Your task to perform on an android device: change the clock display to digital Image 0: 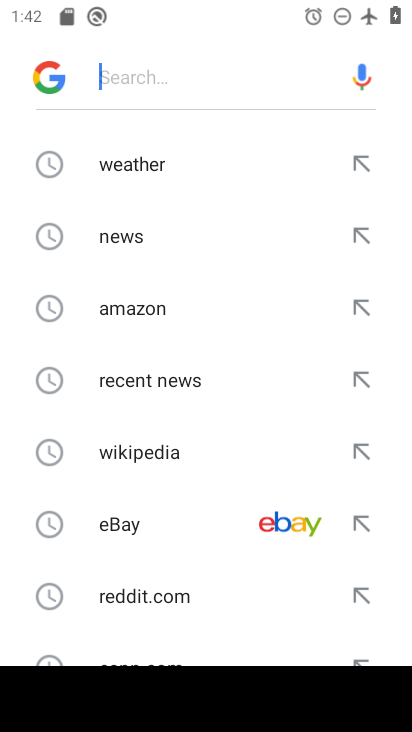
Step 0: press home button
Your task to perform on an android device: change the clock display to digital Image 1: 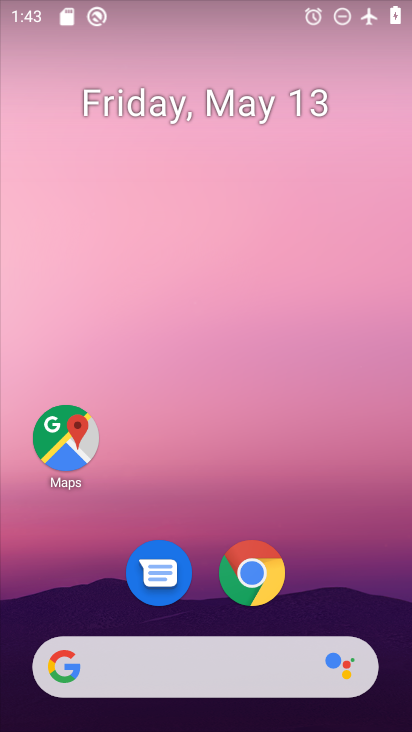
Step 1: drag from (188, 717) to (212, 42)
Your task to perform on an android device: change the clock display to digital Image 2: 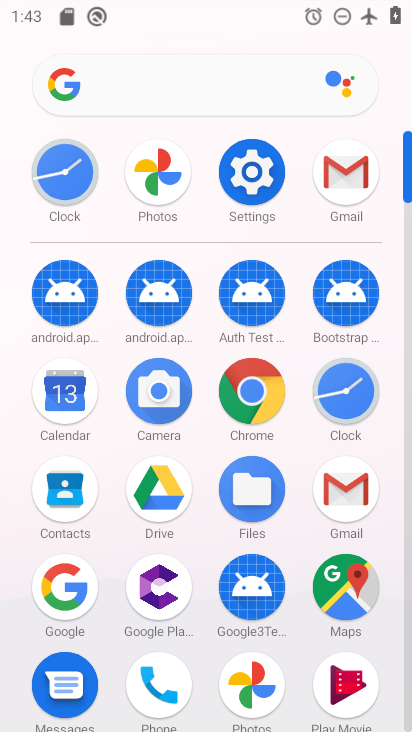
Step 2: click (353, 400)
Your task to perform on an android device: change the clock display to digital Image 3: 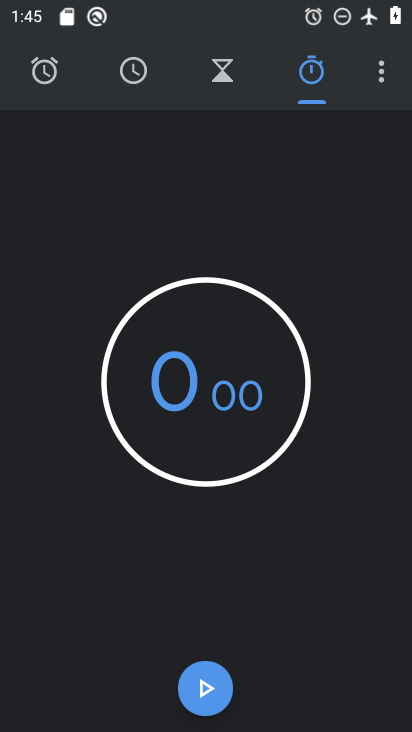
Step 3: click (379, 75)
Your task to perform on an android device: change the clock display to digital Image 4: 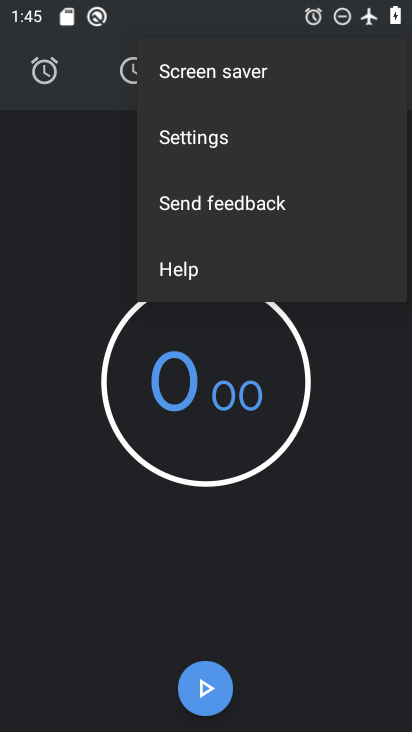
Step 4: click (223, 144)
Your task to perform on an android device: change the clock display to digital Image 5: 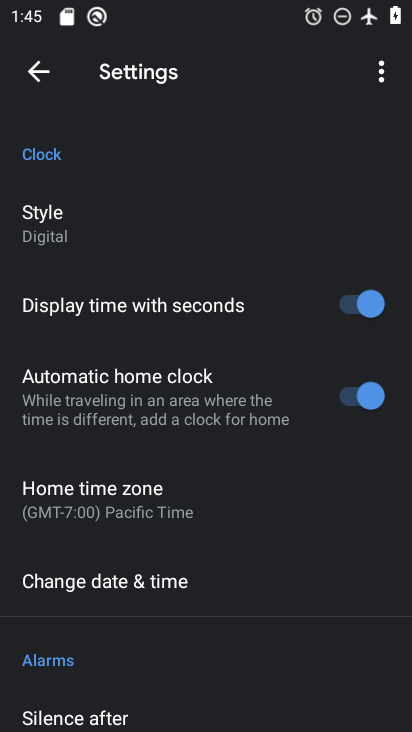
Step 5: click (79, 227)
Your task to perform on an android device: change the clock display to digital Image 6: 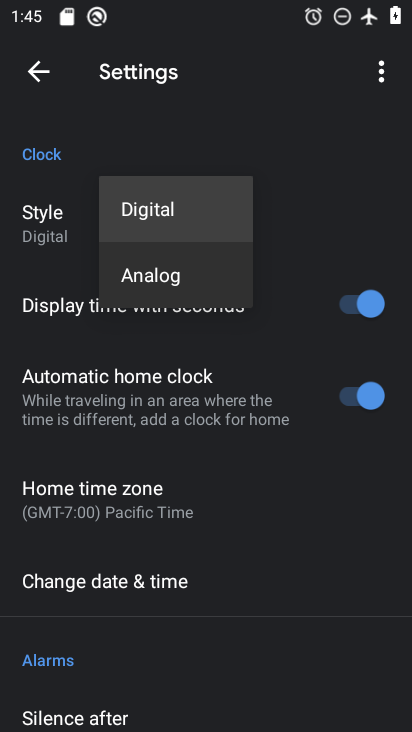
Step 6: click (196, 211)
Your task to perform on an android device: change the clock display to digital Image 7: 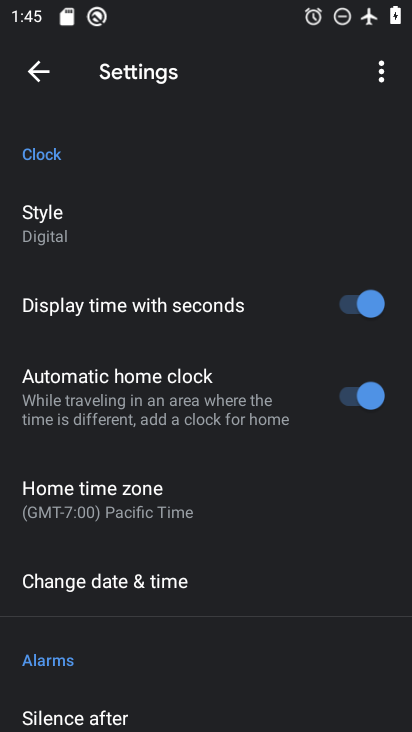
Step 7: task complete